Your task to perform on an android device: stop showing notifications on the lock screen Image 0: 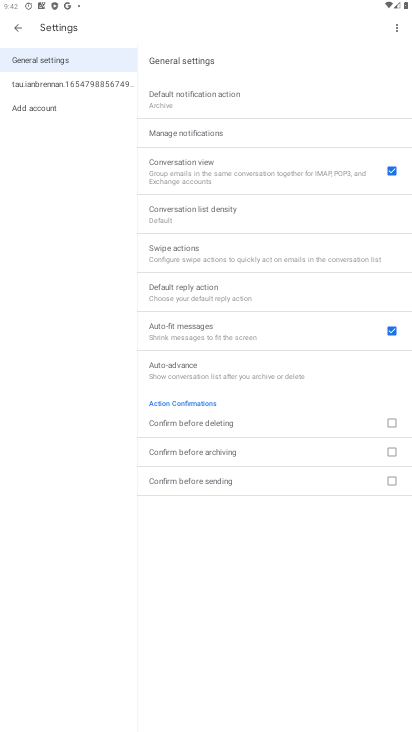
Step 0: press home button
Your task to perform on an android device: stop showing notifications on the lock screen Image 1: 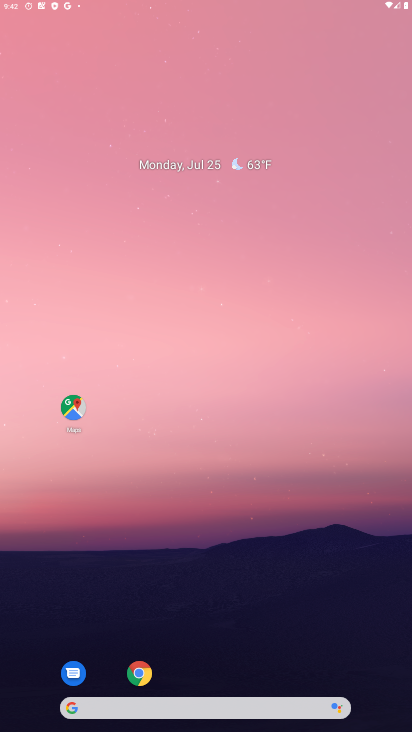
Step 1: drag from (180, 603) to (213, 0)
Your task to perform on an android device: stop showing notifications on the lock screen Image 2: 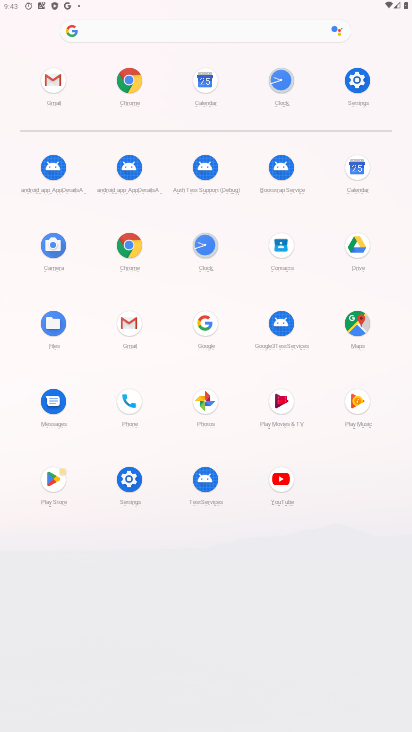
Step 2: click (365, 77)
Your task to perform on an android device: stop showing notifications on the lock screen Image 3: 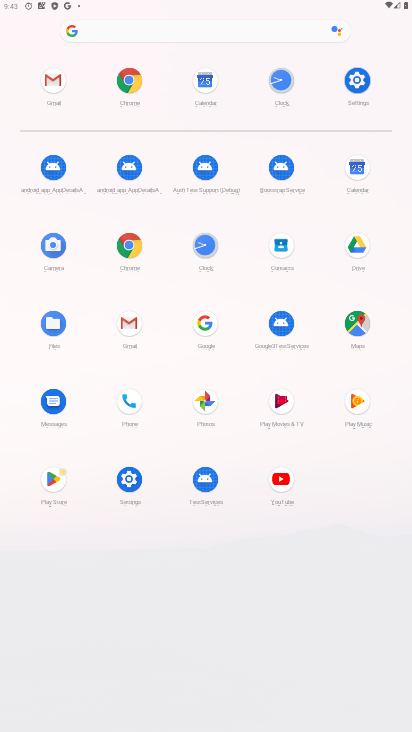
Step 3: click (360, 79)
Your task to perform on an android device: stop showing notifications on the lock screen Image 4: 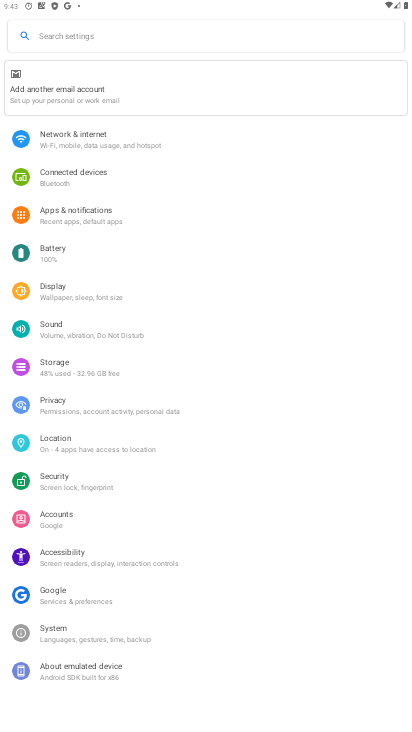
Step 4: click (103, 219)
Your task to perform on an android device: stop showing notifications on the lock screen Image 5: 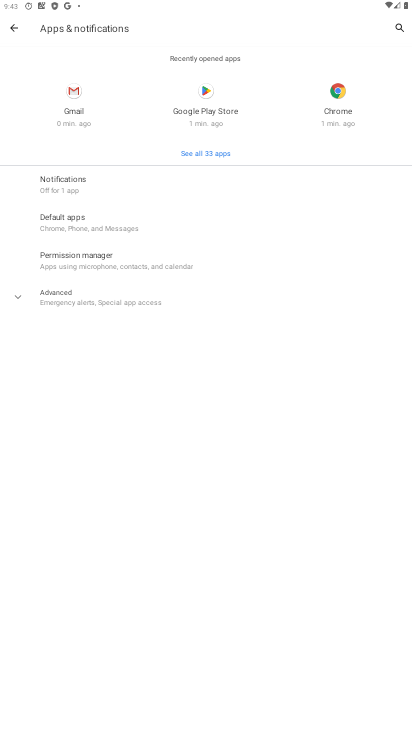
Step 5: click (133, 175)
Your task to perform on an android device: stop showing notifications on the lock screen Image 6: 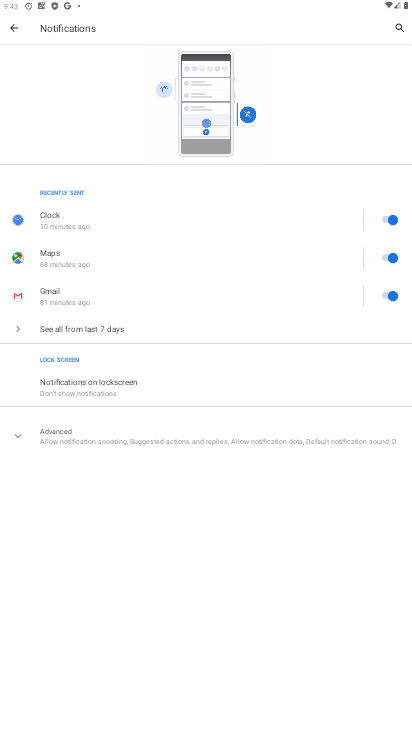
Step 6: click (188, 382)
Your task to perform on an android device: stop showing notifications on the lock screen Image 7: 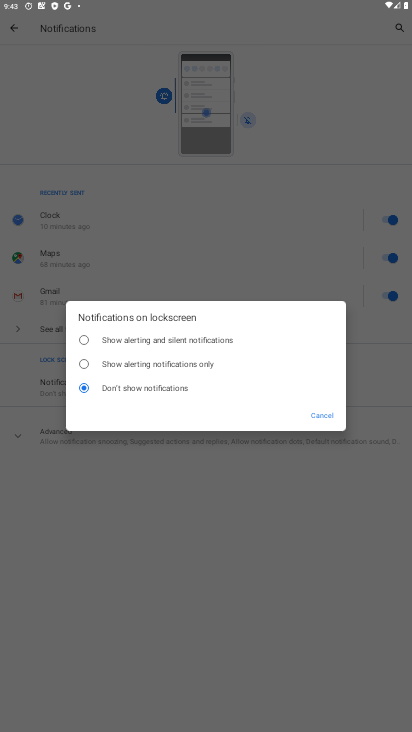
Step 7: click (89, 345)
Your task to perform on an android device: stop showing notifications on the lock screen Image 8: 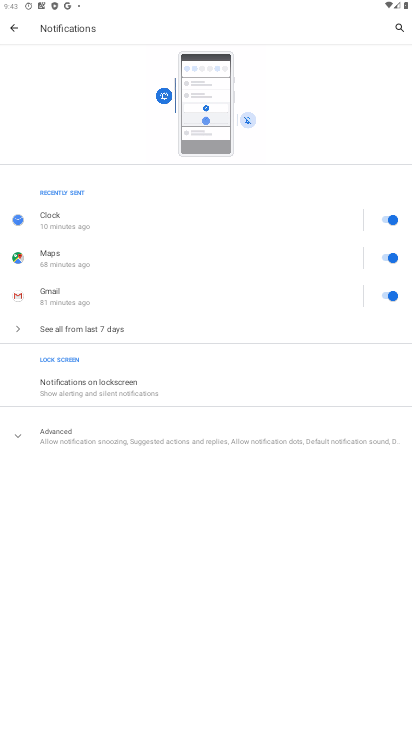
Step 8: task complete